Your task to perform on an android device: When is my next meeting? Image 0: 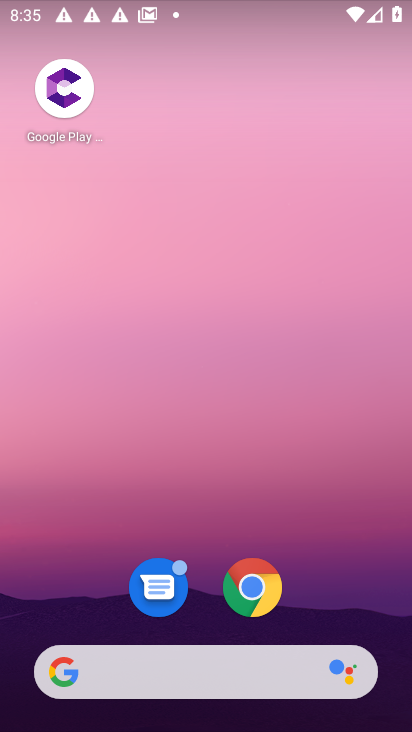
Step 0: drag from (223, 638) to (259, 187)
Your task to perform on an android device: When is my next meeting? Image 1: 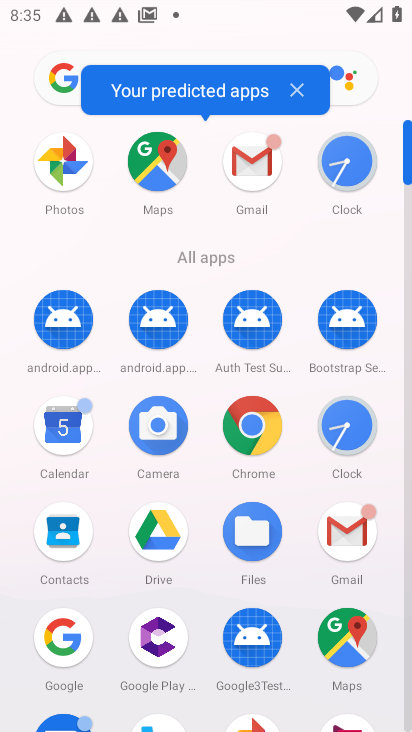
Step 1: click (59, 431)
Your task to perform on an android device: When is my next meeting? Image 2: 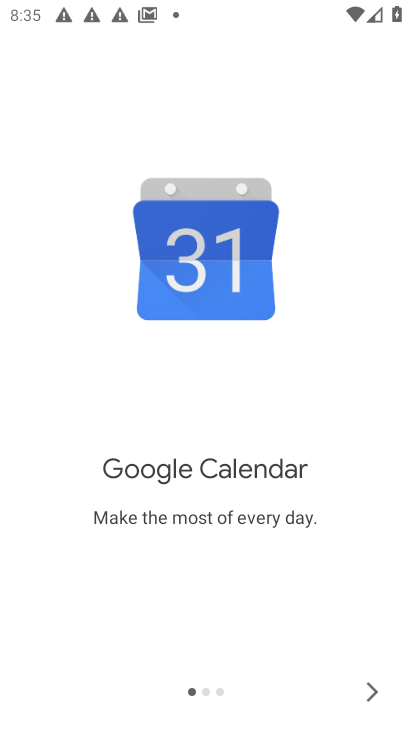
Step 2: click (374, 691)
Your task to perform on an android device: When is my next meeting? Image 3: 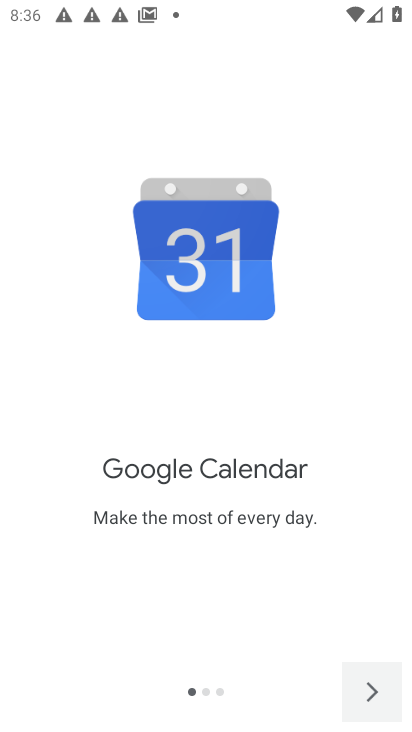
Step 3: click (374, 691)
Your task to perform on an android device: When is my next meeting? Image 4: 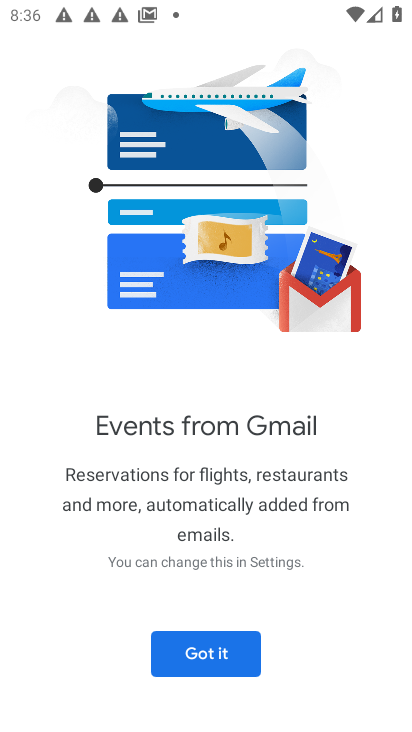
Step 4: click (227, 673)
Your task to perform on an android device: When is my next meeting? Image 5: 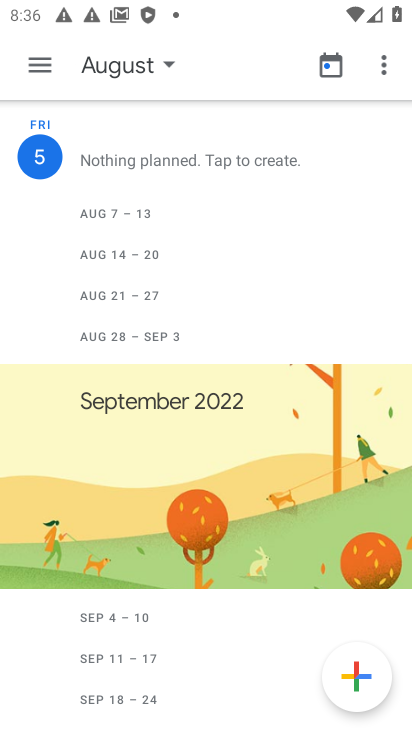
Step 5: click (138, 66)
Your task to perform on an android device: When is my next meeting? Image 6: 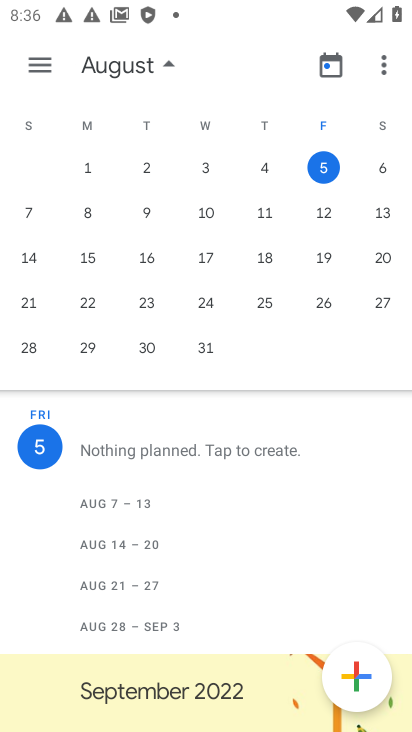
Step 6: click (376, 164)
Your task to perform on an android device: When is my next meeting? Image 7: 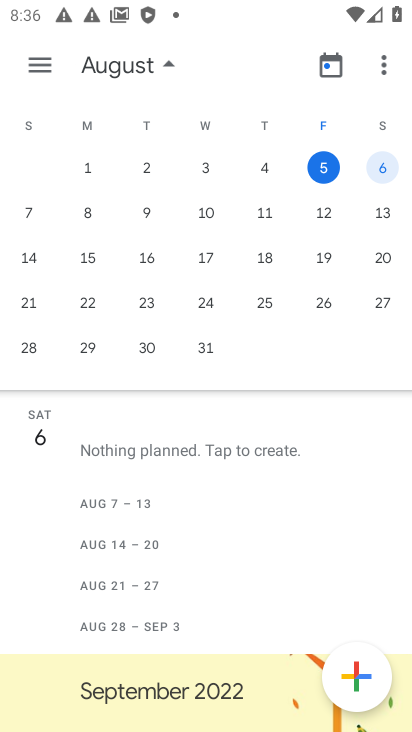
Step 7: click (30, 65)
Your task to perform on an android device: When is my next meeting? Image 8: 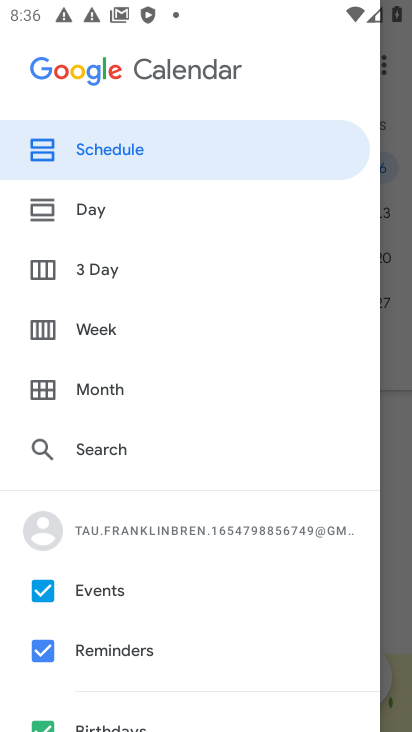
Step 8: drag from (107, 536) to (152, 236)
Your task to perform on an android device: When is my next meeting? Image 9: 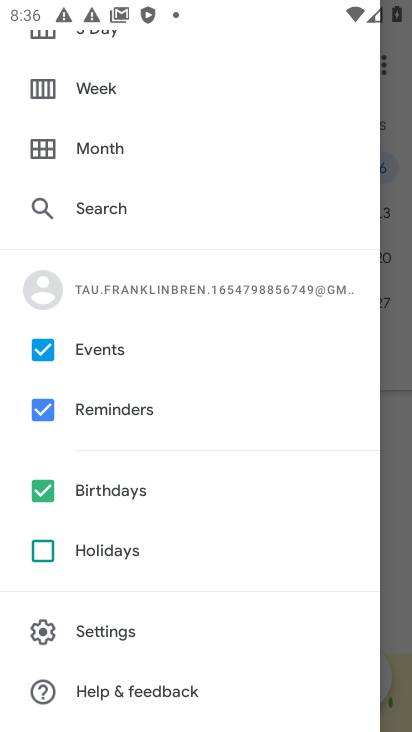
Step 9: click (40, 487)
Your task to perform on an android device: When is my next meeting? Image 10: 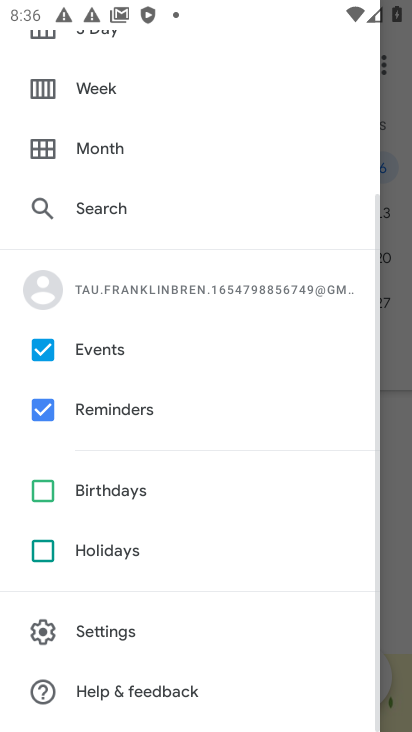
Step 10: click (43, 407)
Your task to perform on an android device: When is my next meeting? Image 11: 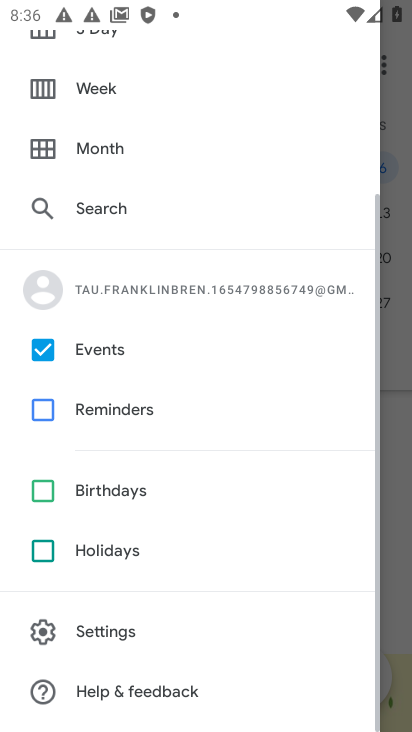
Step 11: click (394, 353)
Your task to perform on an android device: When is my next meeting? Image 12: 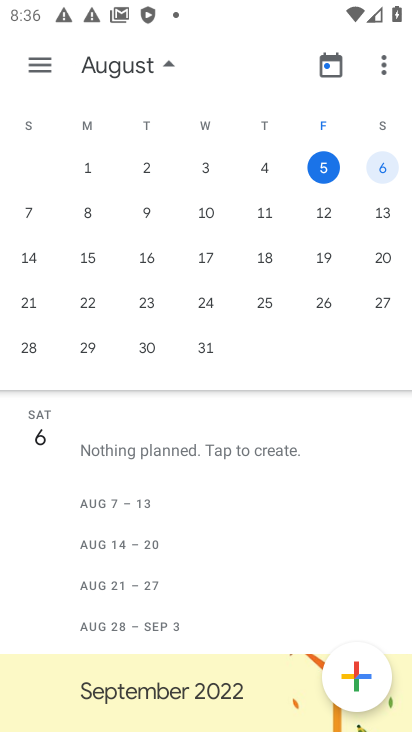
Step 12: task complete